Your task to perform on an android device: change alarm snooze length Image 0: 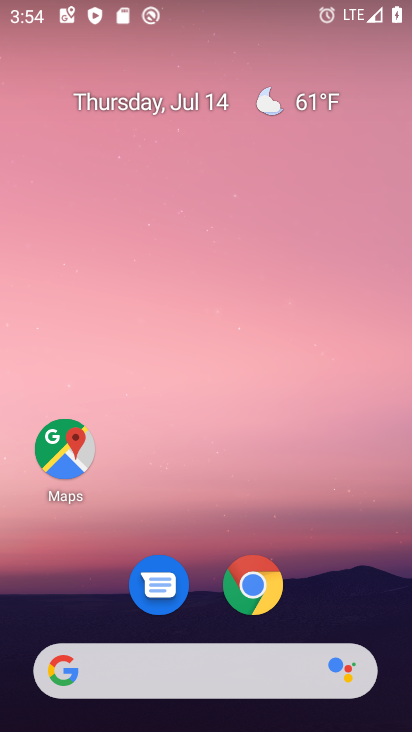
Step 0: drag from (326, 593) to (318, 59)
Your task to perform on an android device: change alarm snooze length Image 1: 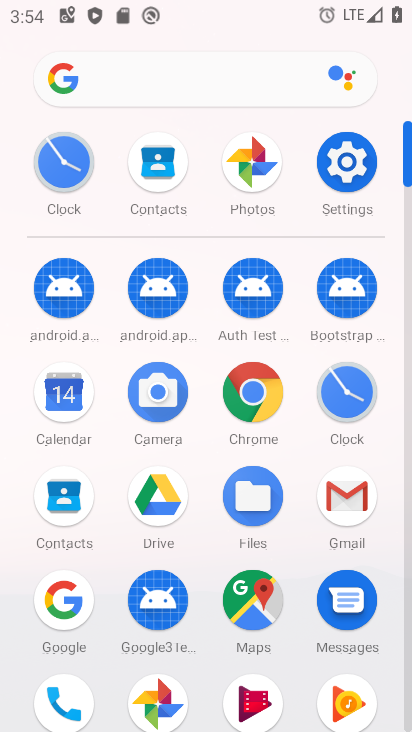
Step 1: click (351, 399)
Your task to perform on an android device: change alarm snooze length Image 2: 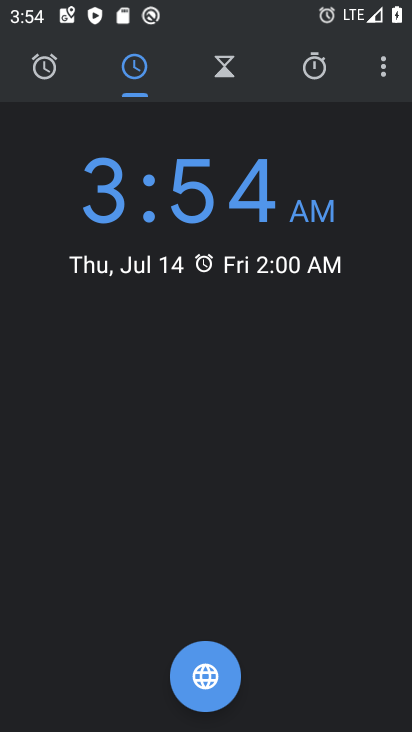
Step 2: click (381, 69)
Your task to perform on an android device: change alarm snooze length Image 3: 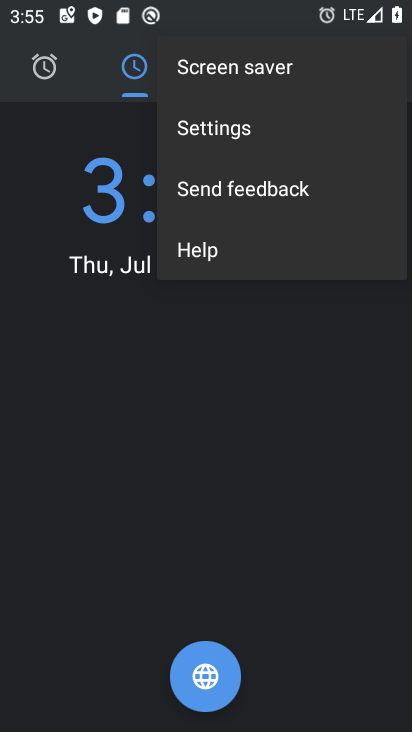
Step 3: click (312, 129)
Your task to perform on an android device: change alarm snooze length Image 4: 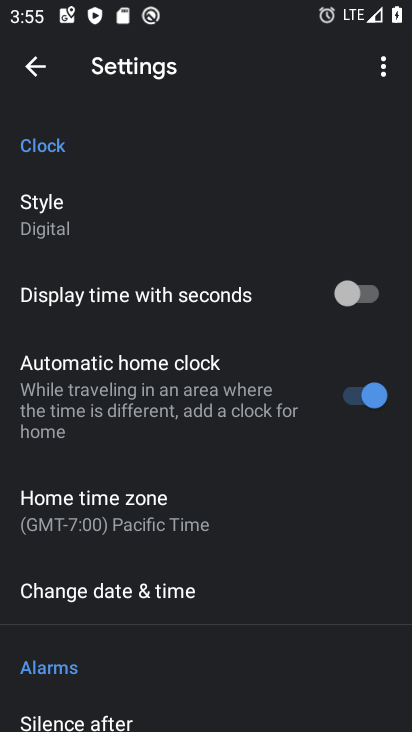
Step 4: drag from (284, 561) to (291, 196)
Your task to perform on an android device: change alarm snooze length Image 5: 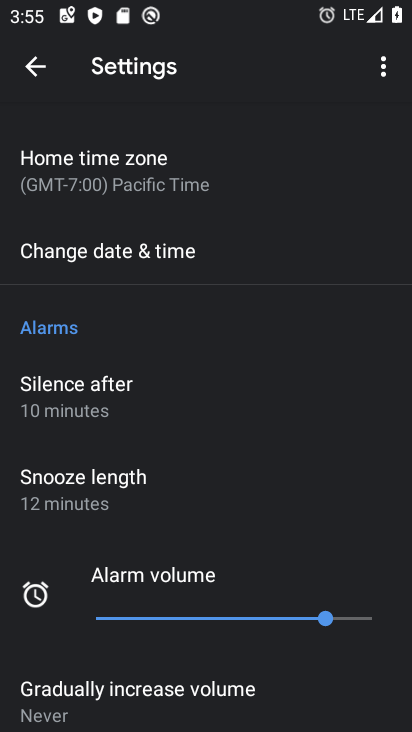
Step 5: click (116, 490)
Your task to perform on an android device: change alarm snooze length Image 6: 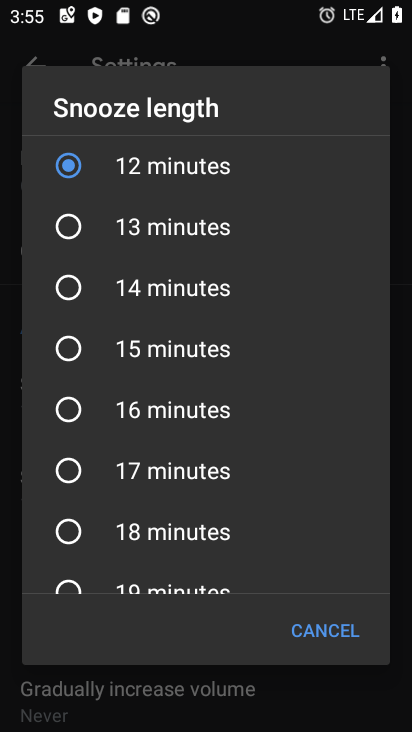
Step 6: drag from (177, 289) to (201, 495)
Your task to perform on an android device: change alarm snooze length Image 7: 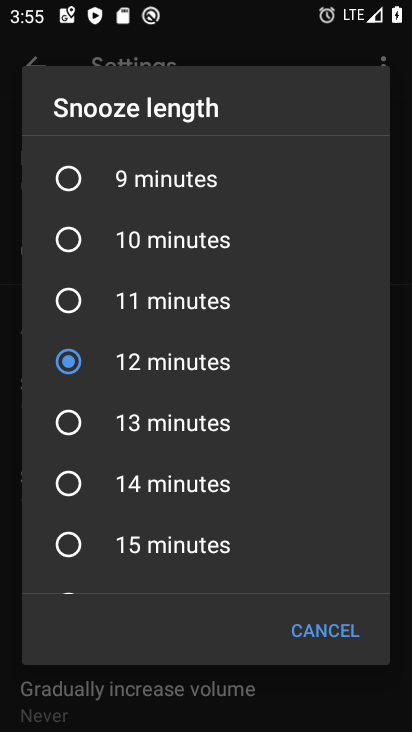
Step 7: click (69, 177)
Your task to perform on an android device: change alarm snooze length Image 8: 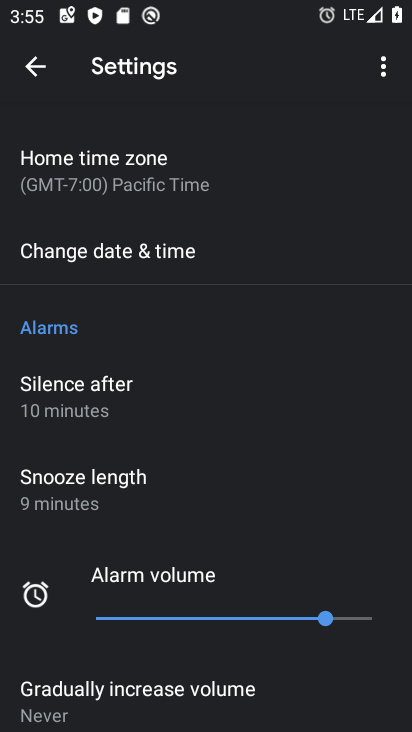
Step 8: task complete